Your task to perform on an android device: toggle sleep mode Image 0: 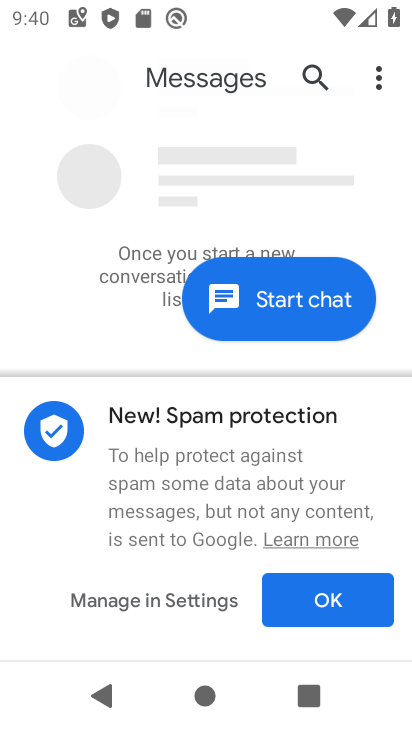
Step 0: press home button
Your task to perform on an android device: toggle sleep mode Image 1: 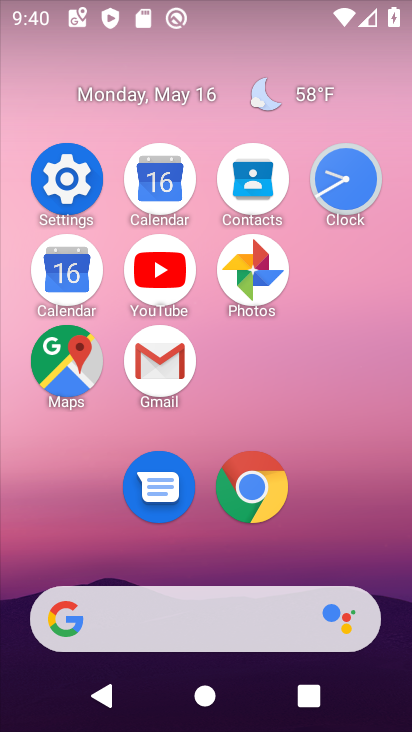
Step 1: click (70, 162)
Your task to perform on an android device: toggle sleep mode Image 2: 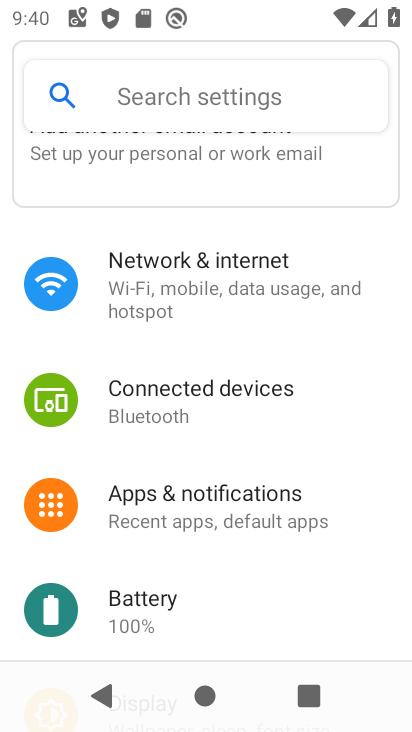
Step 2: drag from (215, 519) to (259, 127)
Your task to perform on an android device: toggle sleep mode Image 3: 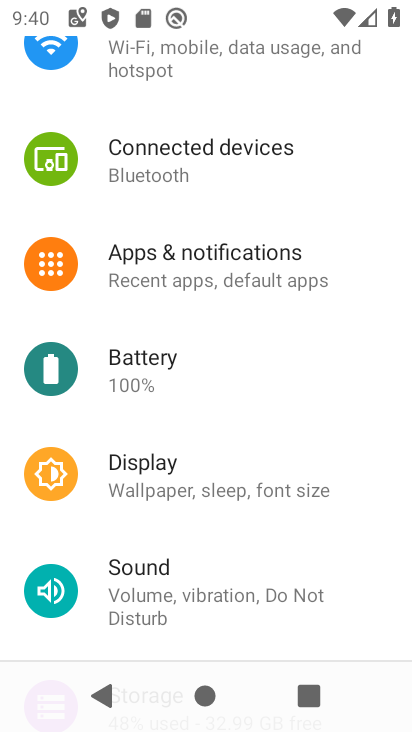
Step 3: click (240, 493)
Your task to perform on an android device: toggle sleep mode Image 4: 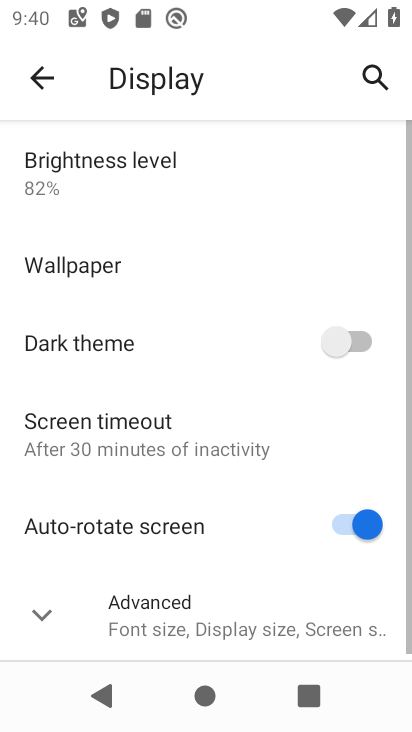
Step 4: click (206, 450)
Your task to perform on an android device: toggle sleep mode Image 5: 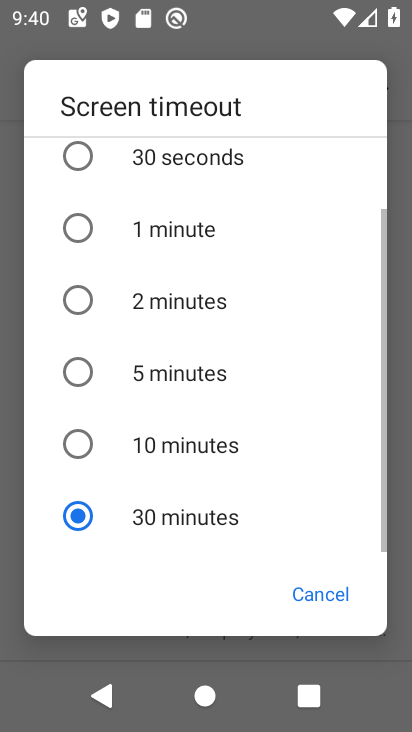
Step 5: click (151, 240)
Your task to perform on an android device: toggle sleep mode Image 6: 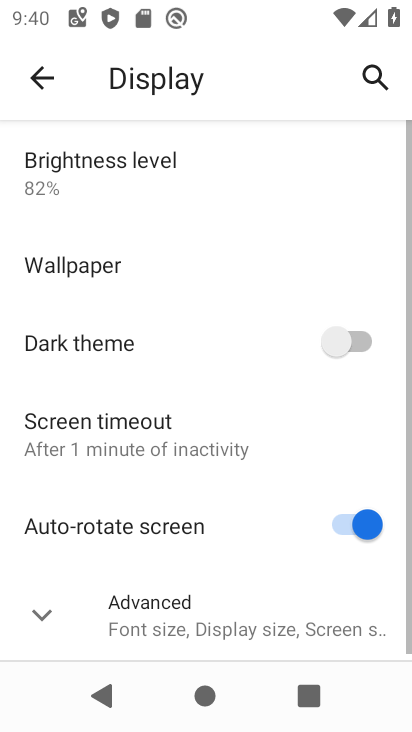
Step 6: task complete